Your task to perform on an android device: Go to Reddit.com Image 0: 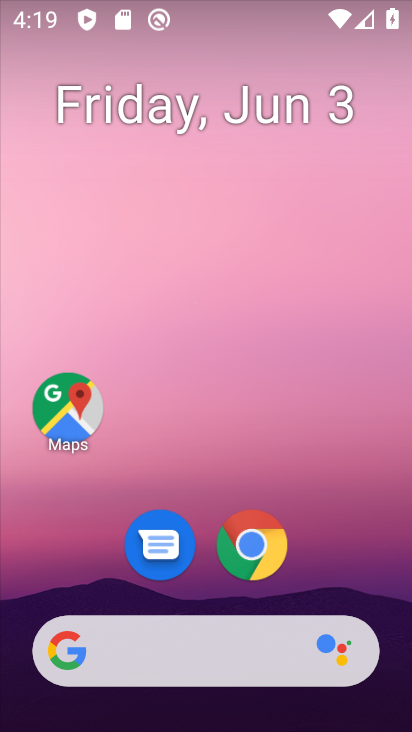
Step 0: click (271, 549)
Your task to perform on an android device: Go to Reddit.com Image 1: 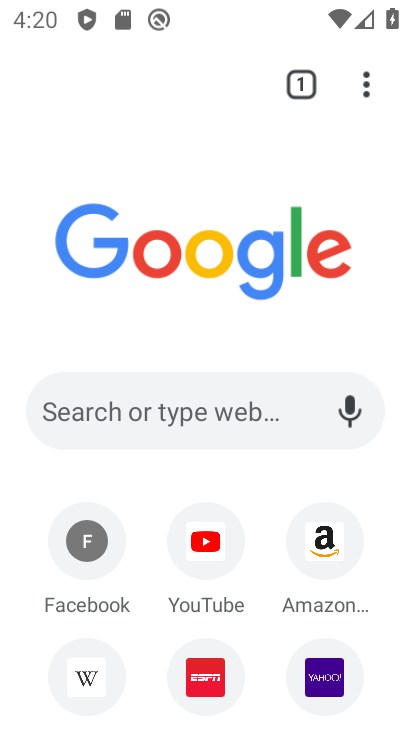
Step 1: click (255, 415)
Your task to perform on an android device: Go to Reddit.com Image 2: 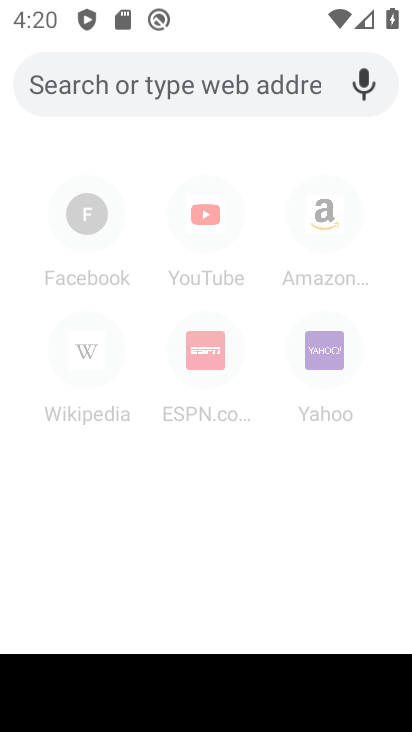
Step 2: type "Reddit.com"
Your task to perform on an android device: Go to Reddit.com Image 3: 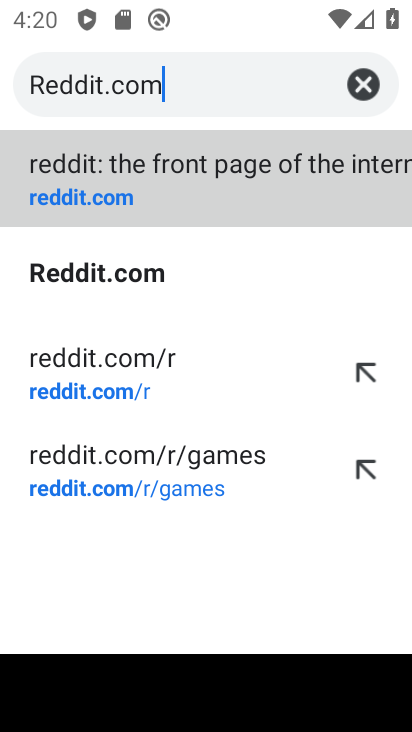
Step 3: click (119, 195)
Your task to perform on an android device: Go to Reddit.com Image 4: 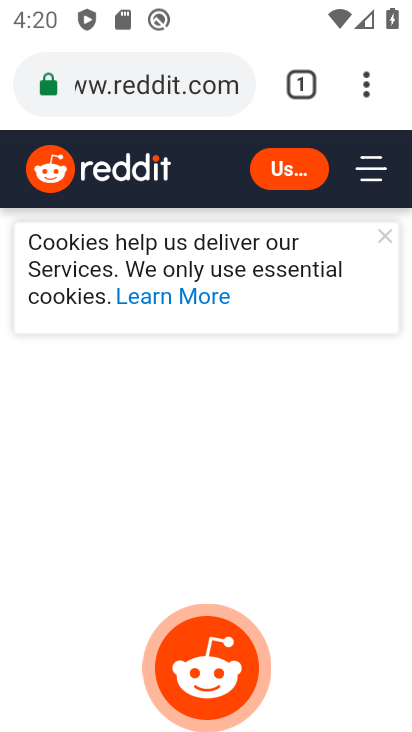
Step 4: task complete